Your task to perform on an android device: Search for seafood restaurants on Google Maps Image 0: 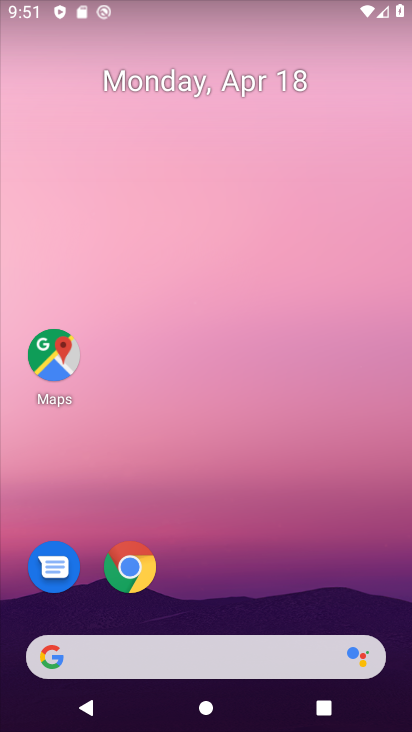
Step 0: click (51, 349)
Your task to perform on an android device: Search for seafood restaurants on Google Maps Image 1: 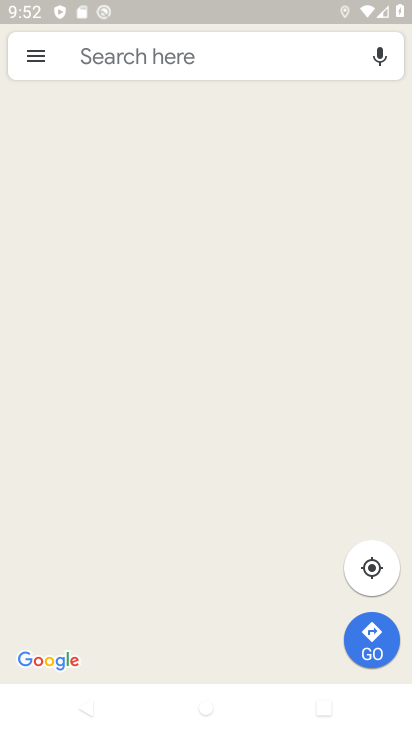
Step 1: click (194, 52)
Your task to perform on an android device: Search for seafood restaurants on Google Maps Image 2: 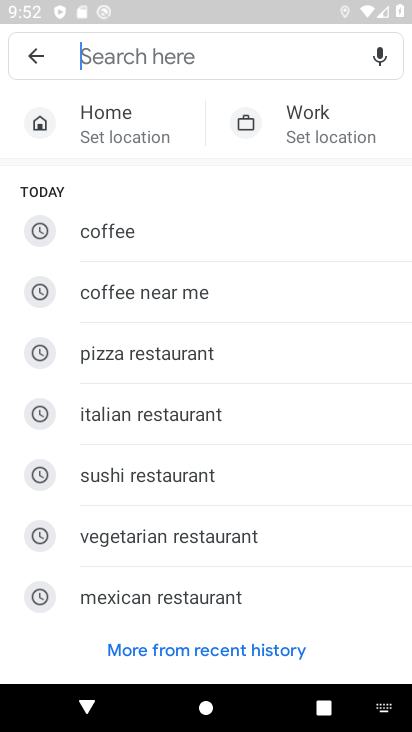
Step 2: type "seafood restaurants"
Your task to perform on an android device: Search for seafood restaurants on Google Maps Image 3: 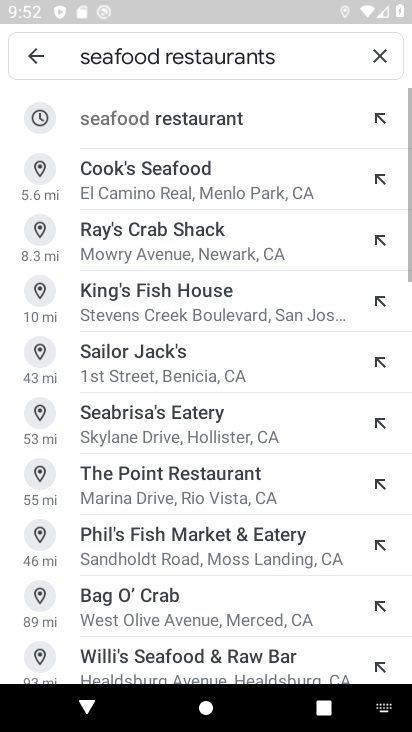
Step 3: click (148, 128)
Your task to perform on an android device: Search for seafood restaurants on Google Maps Image 4: 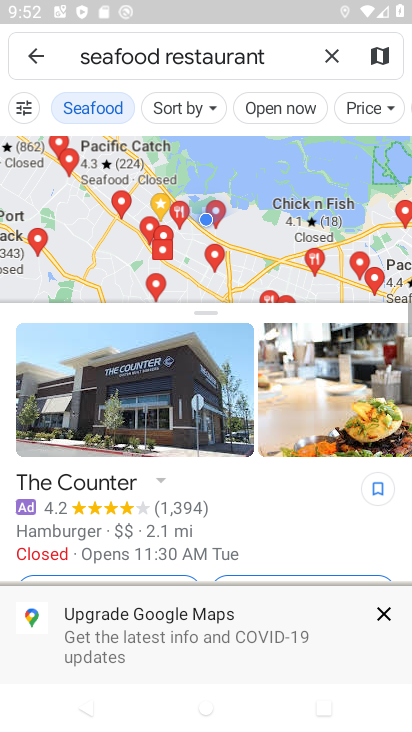
Step 4: task complete